Your task to perform on an android device: Go to wifi settings Image 0: 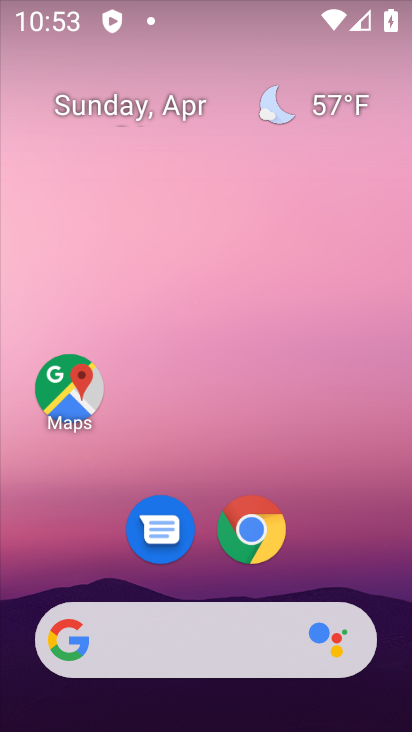
Step 0: drag from (326, 553) to (188, 9)
Your task to perform on an android device: Go to wifi settings Image 1: 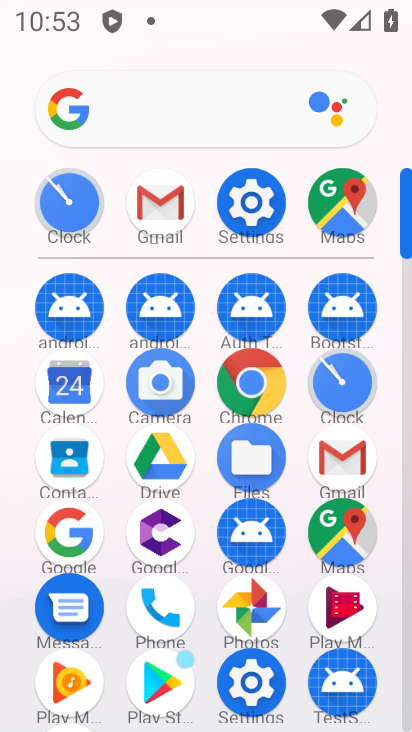
Step 1: click (262, 215)
Your task to perform on an android device: Go to wifi settings Image 2: 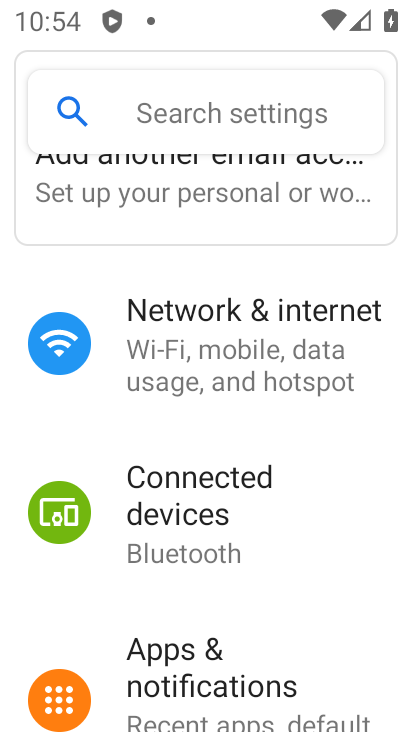
Step 2: click (247, 343)
Your task to perform on an android device: Go to wifi settings Image 3: 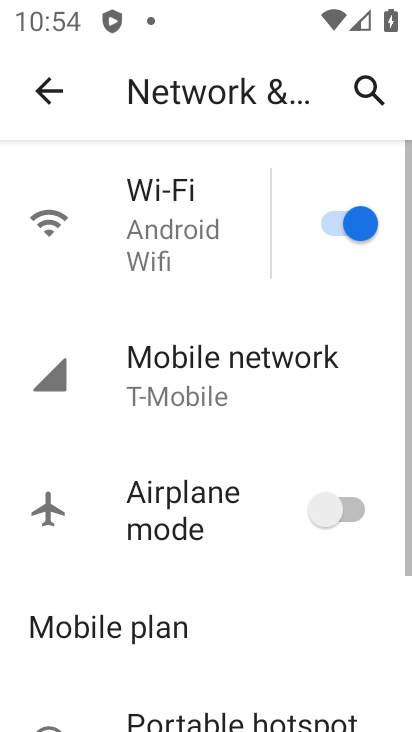
Step 3: click (163, 194)
Your task to perform on an android device: Go to wifi settings Image 4: 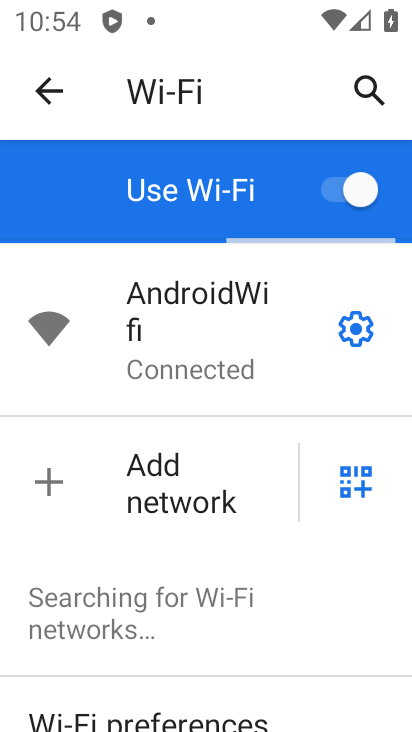
Step 4: task complete